Your task to perform on an android device: Go to Wikipedia Image 0: 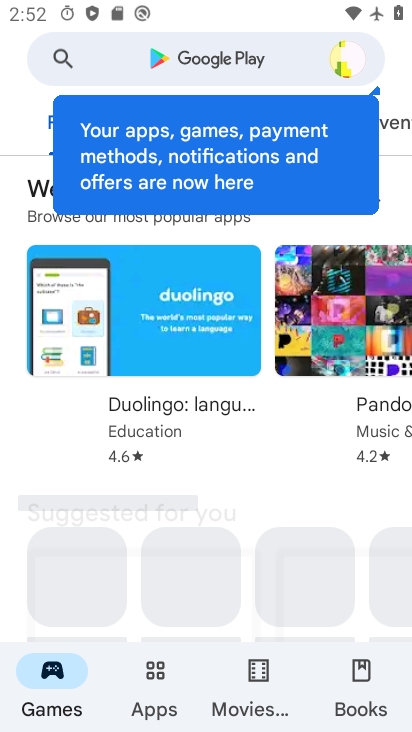
Step 0: press back button
Your task to perform on an android device: Go to Wikipedia Image 1: 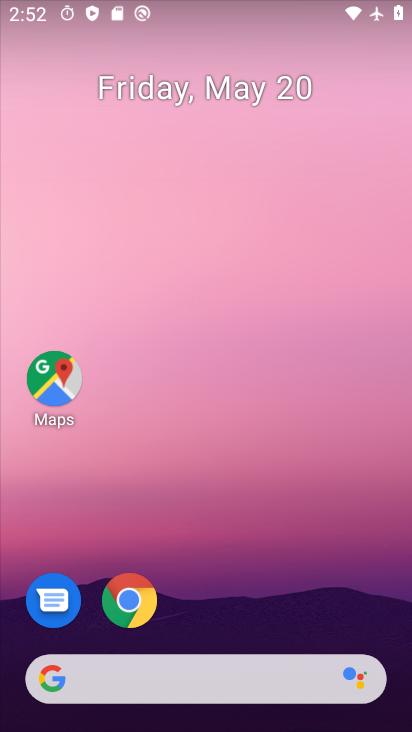
Step 1: drag from (269, 535) to (200, 13)
Your task to perform on an android device: Go to Wikipedia Image 2: 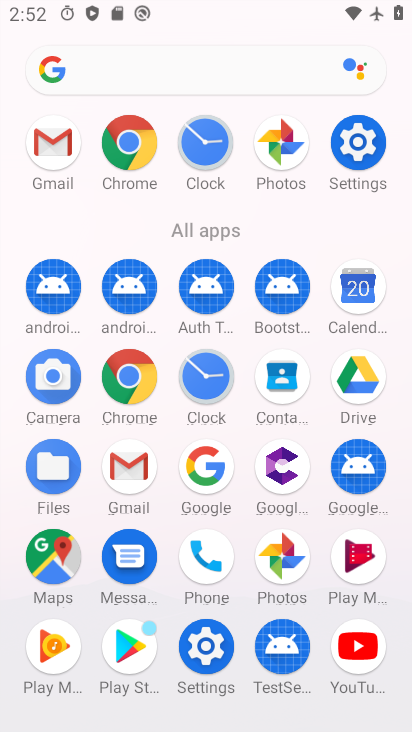
Step 2: click (125, 142)
Your task to perform on an android device: Go to Wikipedia Image 3: 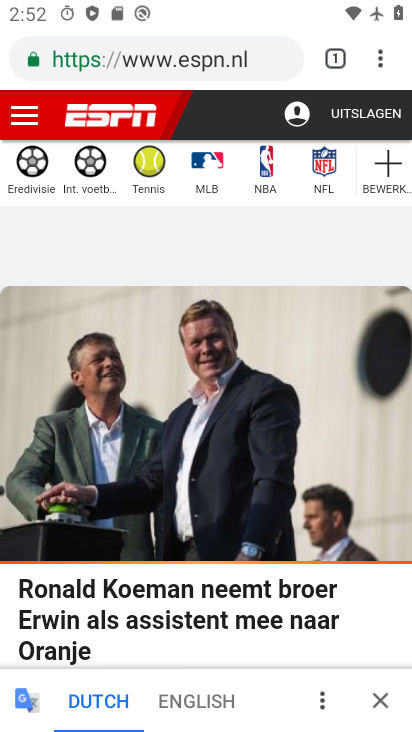
Step 3: click (192, 53)
Your task to perform on an android device: Go to Wikipedia Image 4: 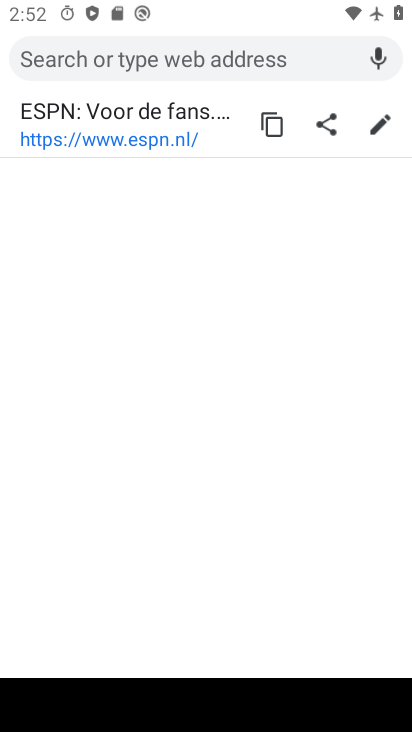
Step 4: drag from (260, 723) to (183, 711)
Your task to perform on an android device: Go to Wikipedia Image 5: 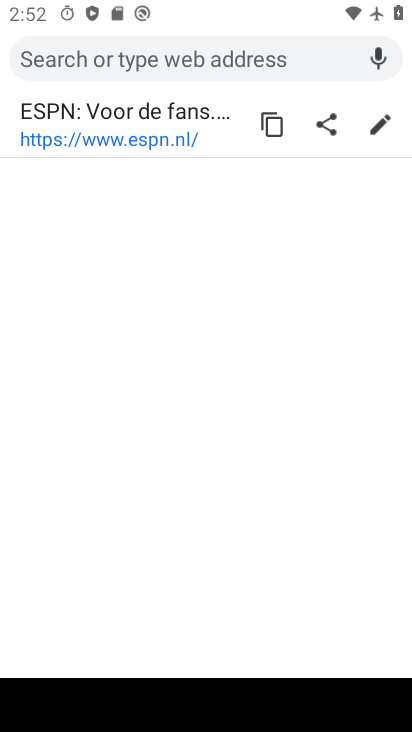
Step 5: type "Wikipedia"
Your task to perform on an android device: Go to Wikipedia Image 6: 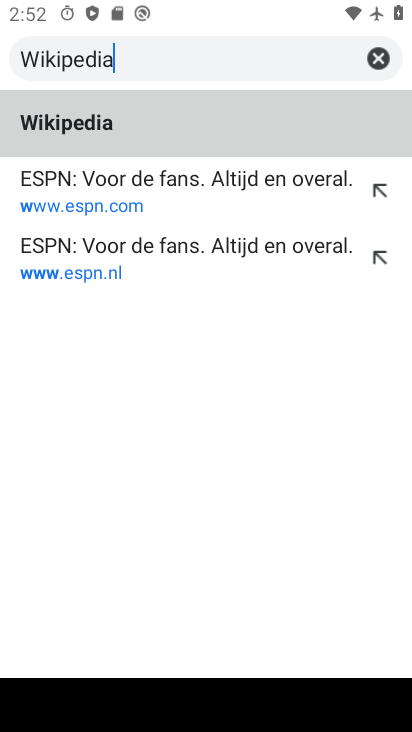
Step 6: type ""
Your task to perform on an android device: Go to Wikipedia Image 7: 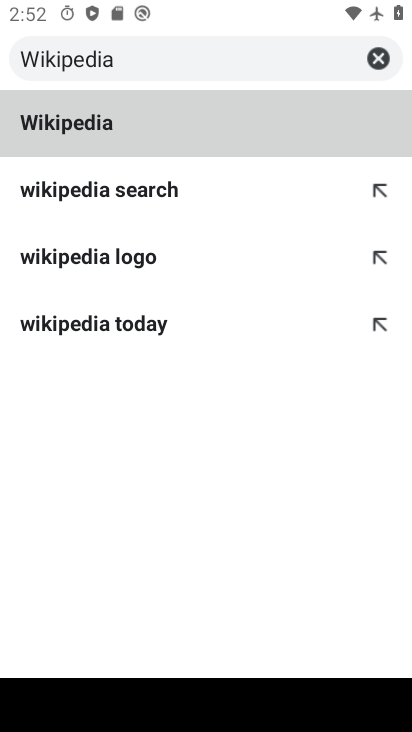
Step 7: click (104, 135)
Your task to perform on an android device: Go to Wikipedia Image 8: 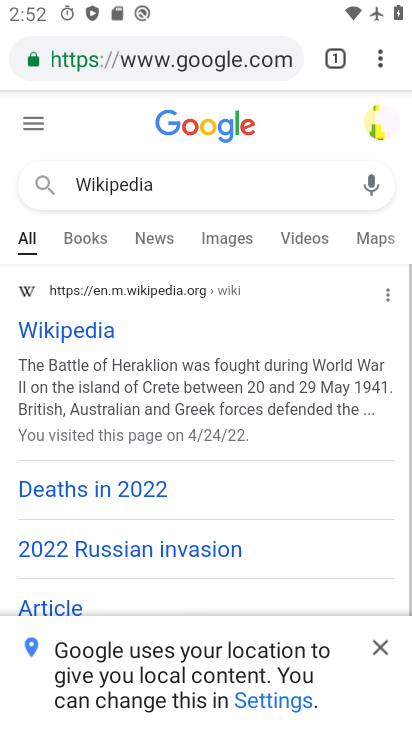
Step 8: click (52, 328)
Your task to perform on an android device: Go to Wikipedia Image 9: 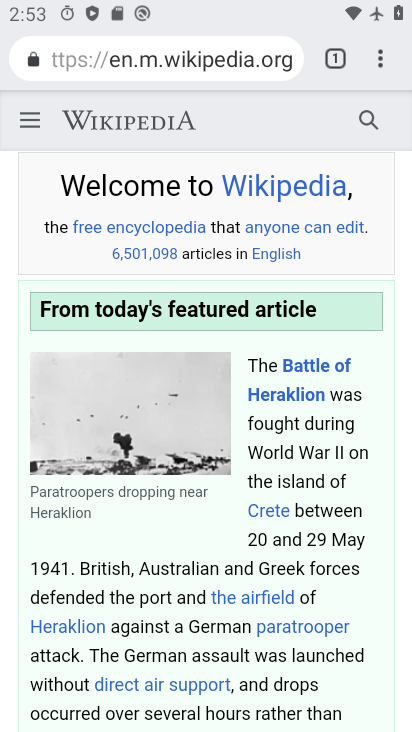
Step 9: task complete